Your task to perform on an android device: toggle notifications settings in the gmail app Image 0: 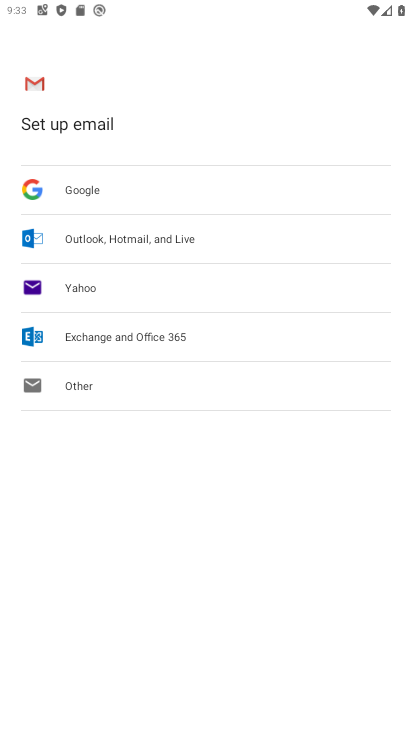
Step 0: drag from (202, 633) to (302, 166)
Your task to perform on an android device: toggle notifications settings in the gmail app Image 1: 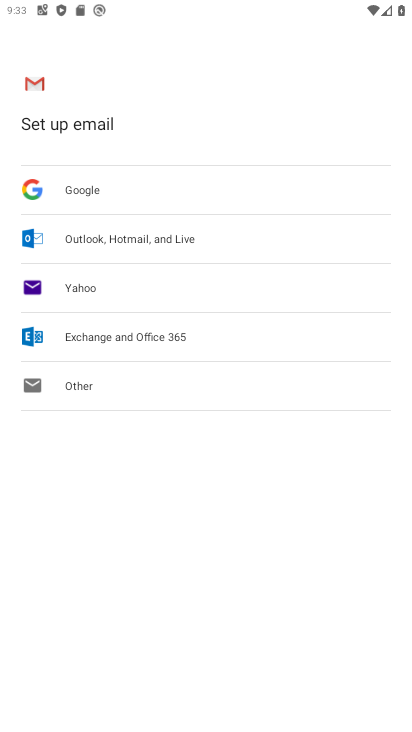
Step 1: press home button
Your task to perform on an android device: toggle notifications settings in the gmail app Image 2: 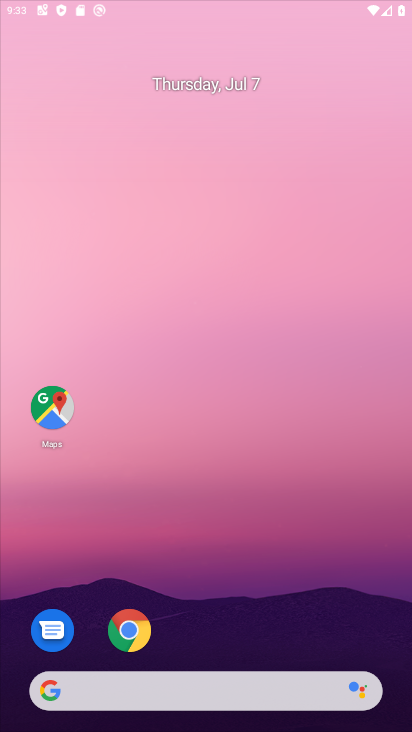
Step 2: drag from (246, 552) to (260, 280)
Your task to perform on an android device: toggle notifications settings in the gmail app Image 3: 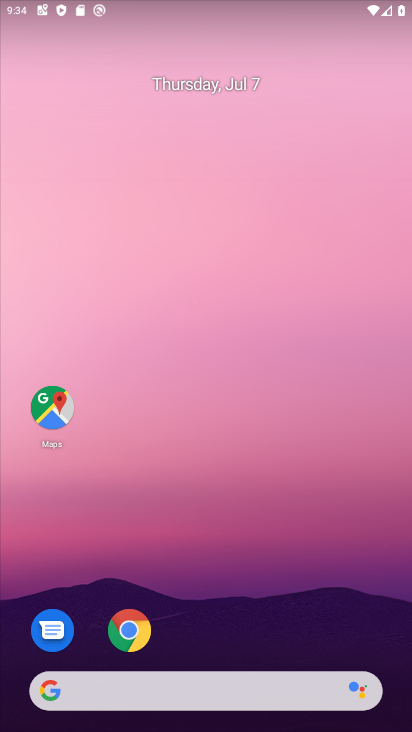
Step 3: drag from (152, 603) to (255, 280)
Your task to perform on an android device: toggle notifications settings in the gmail app Image 4: 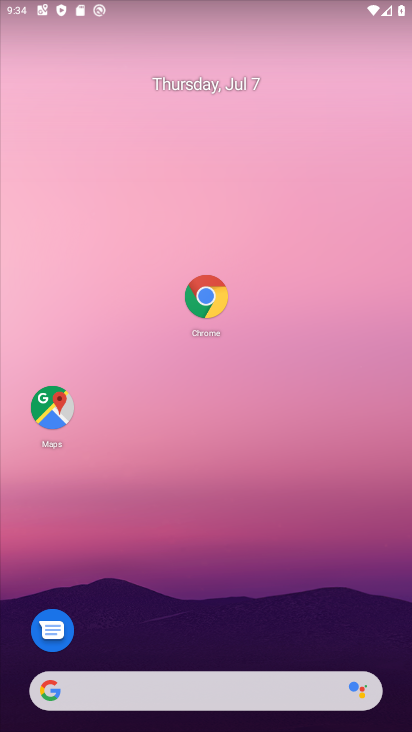
Step 4: drag from (198, 506) to (291, 166)
Your task to perform on an android device: toggle notifications settings in the gmail app Image 5: 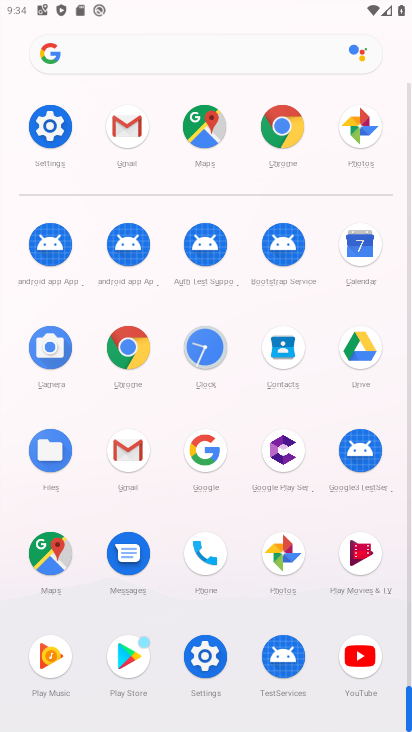
Step 5: click (289, 133)
Your task to perform on an android device: toggle notifications settings in the gmail app Image 6: 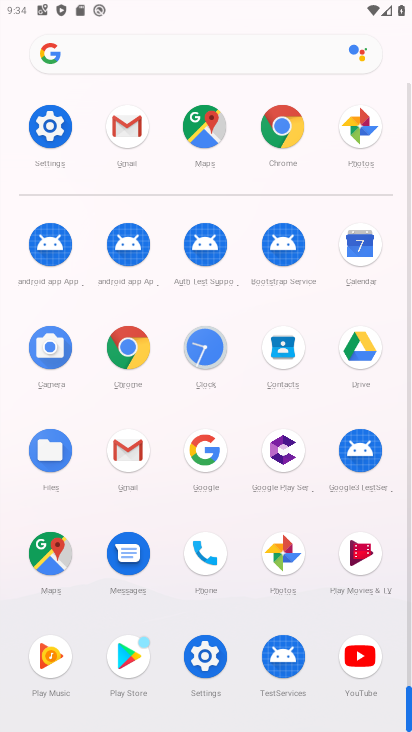
Step 6: click (124, 431)
Your task to perform on an android device: toggle notifications settings in the gmail app Image 7: 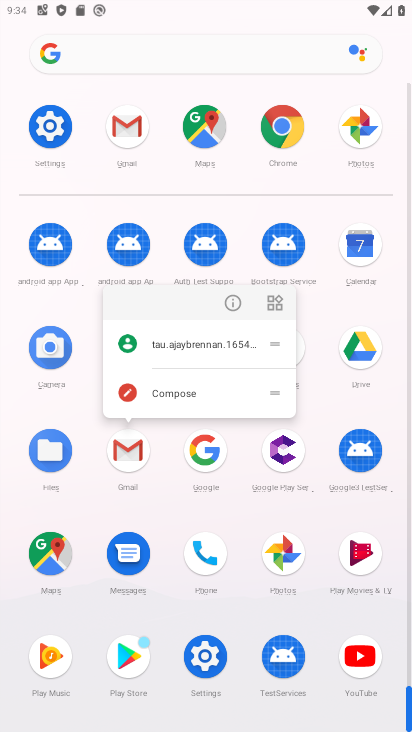
Step 7: click (226, 302)
Your task to perform on an android device: toggle notifications settings in the gmail app Image 8: 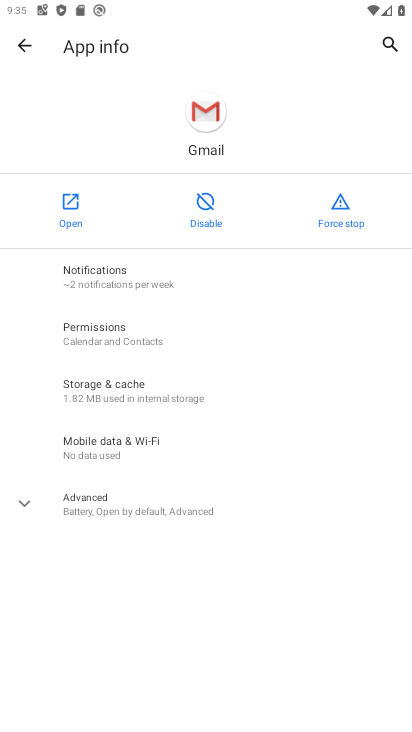
Step 8: click (58, 211)
Your task to perform on an android device: toggle notifications settings in the gmail app Image 9: 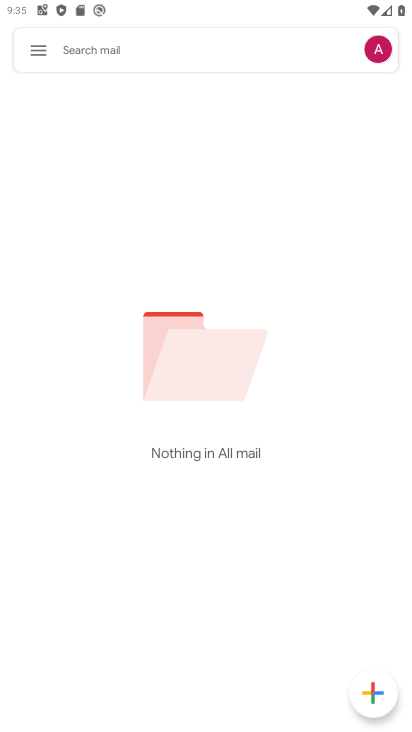
Step 9: click (54, 57)
Your task to perform on an android device: toggle notifications settings in the gmail app Image 10: 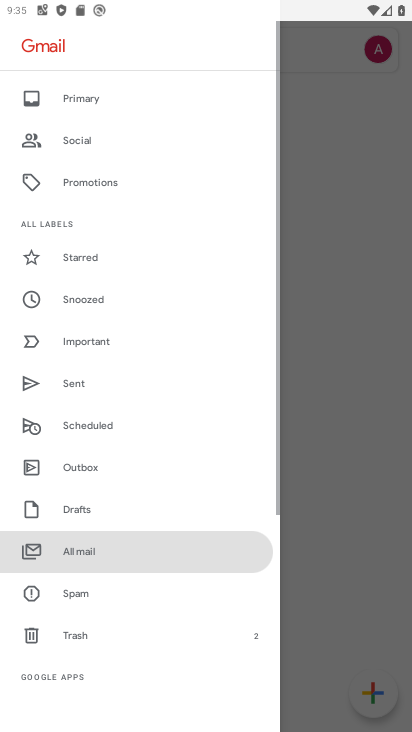
Step 10: drag from (171, 605) to (411, 135)
Your task to perform on an android device: toggle notifications settings in the gmail app Image 11: 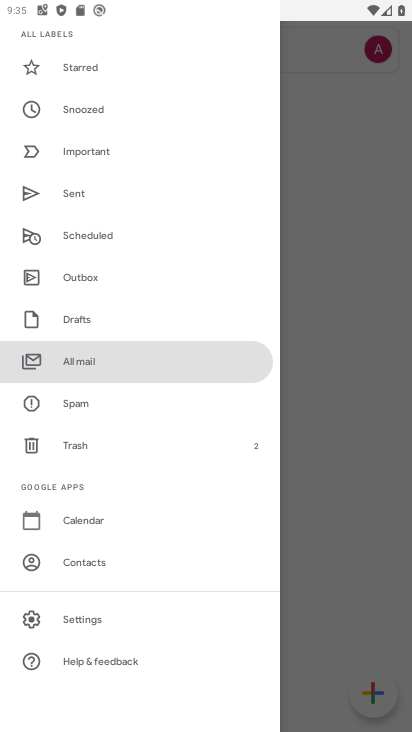
Step 11: click (76, 608)
Your task to perform on an android device: toggle notifications settings in the gmail app Image 12: 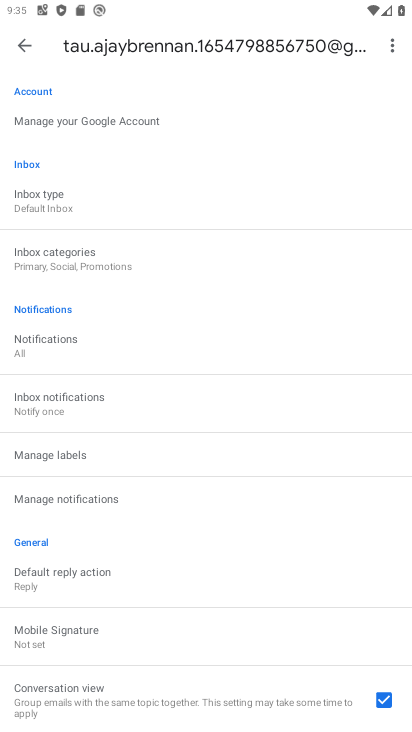
Step 12: click (36, 499)
Your task to perform on an android device: toggle notifications settings in the gmail app Image 13: 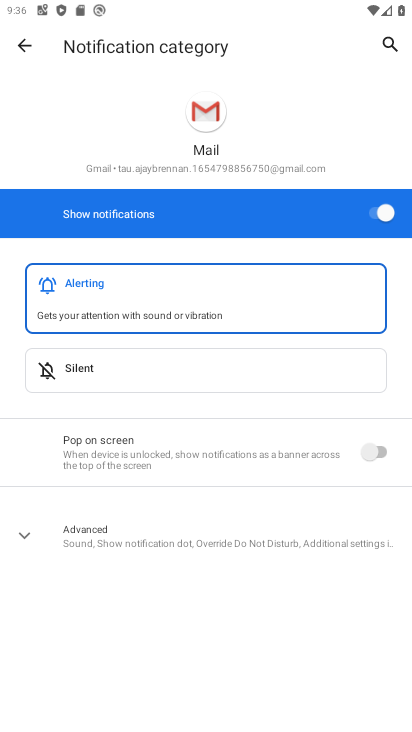
Step 13: click (377, 219)
Your task to perform on an android device: toggle notifications settings in the gmail app Image 14: 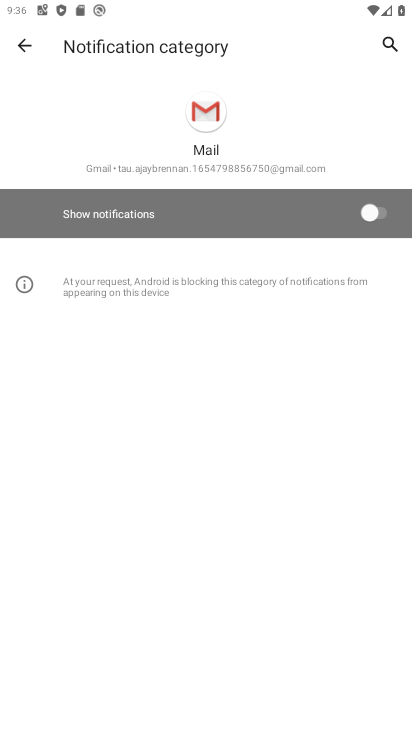
Step 14: task complete